Your task to perform on an android device: check google app version Image 0: 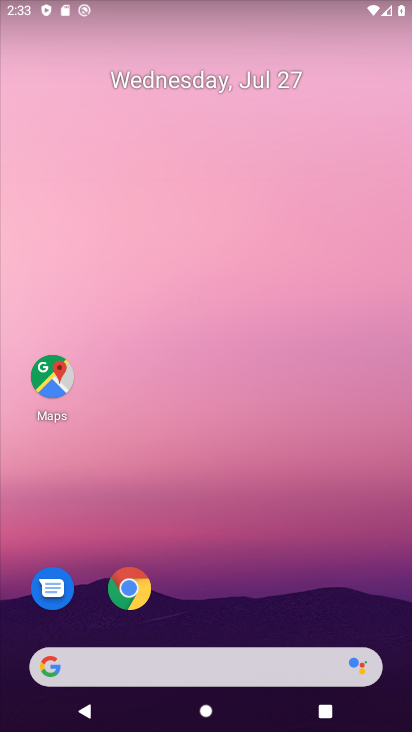
Step 0: drag from (232, 688) to (113, 216)
Your task to perform on an android device: check google app version Image 1: 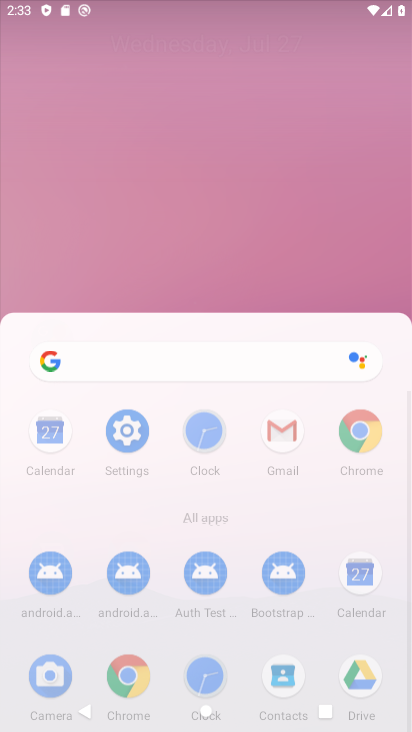
Step 1: drag from (182, 623) to (179, 203)
Your task to perform on an android device: check google app version Image 2: 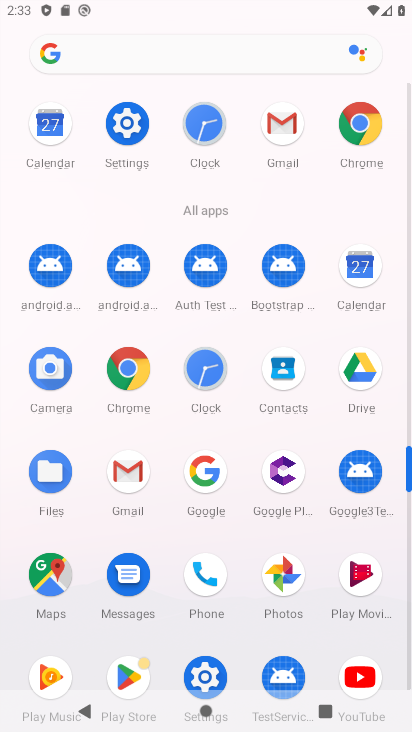
Step 2: drag from (274, 618) to (225, 248)
Your task to perform on an android device: check google app version Image 3: 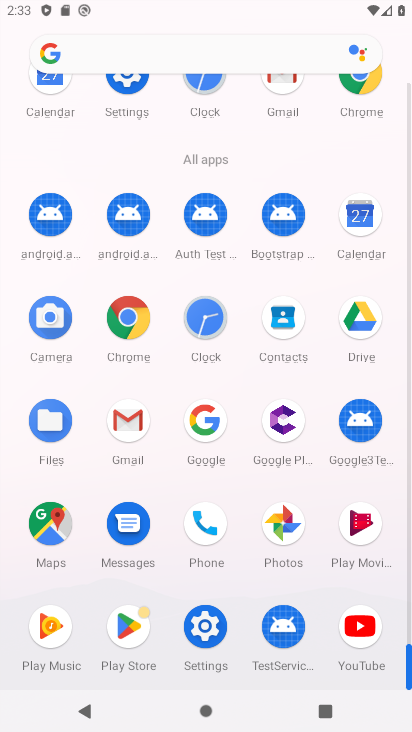
Step 3: click (199, 425)
Your task to perform on an android device: check google app version Image 4: 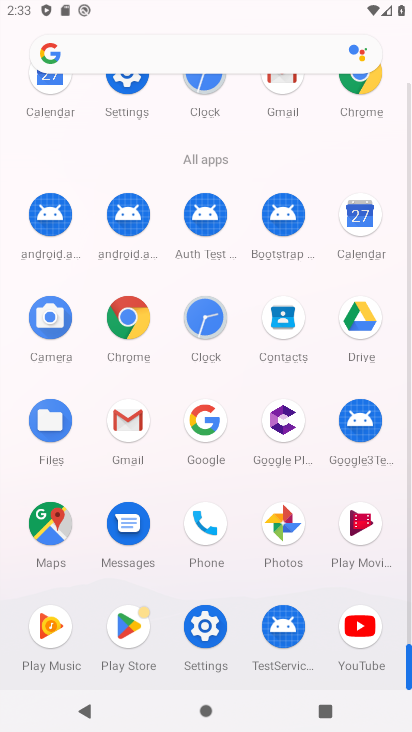
Step 4: click (204, 420)
Your task to perform on an android device: check google app version Image 5: 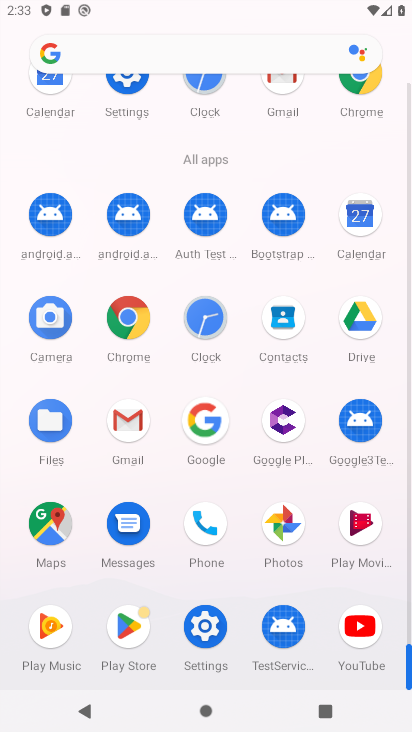
Step 5: click (205, 419)
Your task to perform on an android device: check google app version Image 6: 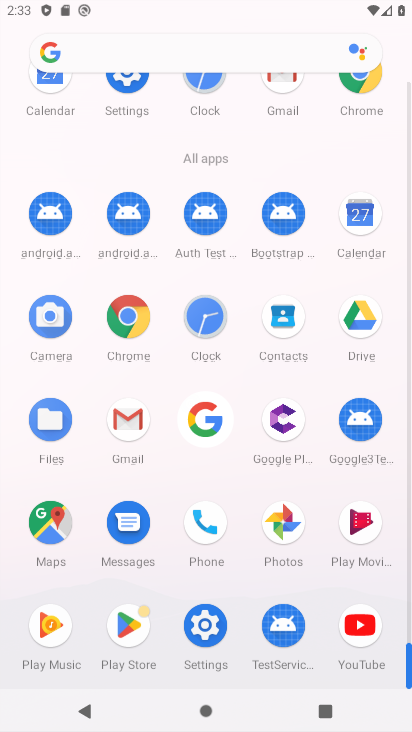
Step 6: click (204, 413)
Your task to perform on an android device: check google app version Image 7: 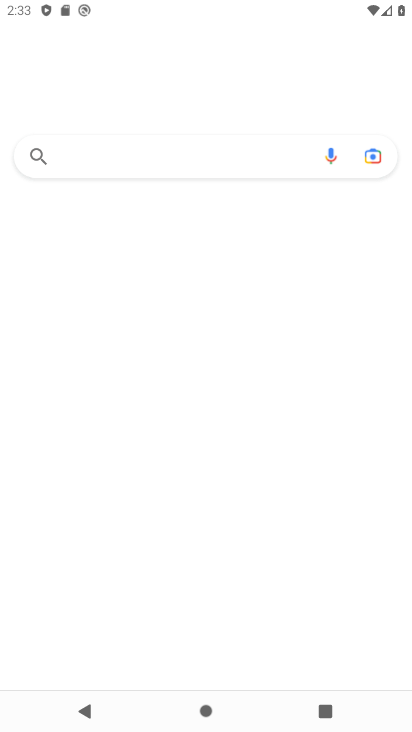
Step 7: click (203, 412)
Your task to perform on an android device: check google app version Image 8: 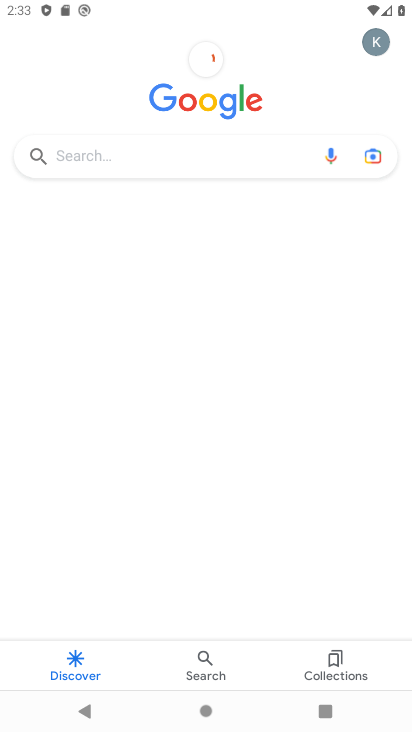
Step 8: click (372, 38)
Your task to perform on an android device: check google app version Image 9: 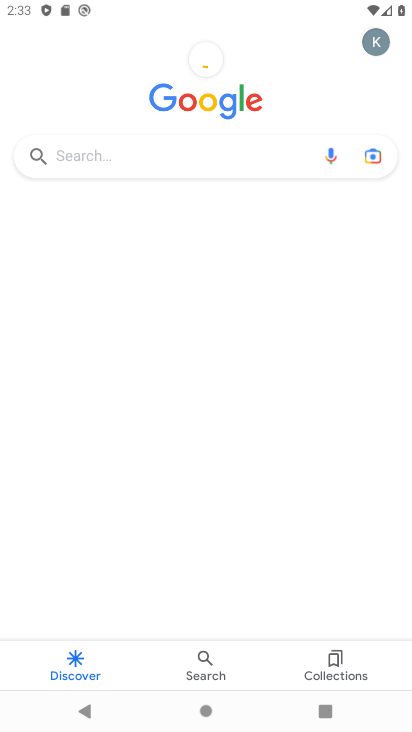
Step 9: click (373, 37)
Your task to perform on an android device: check google app version Image 10: 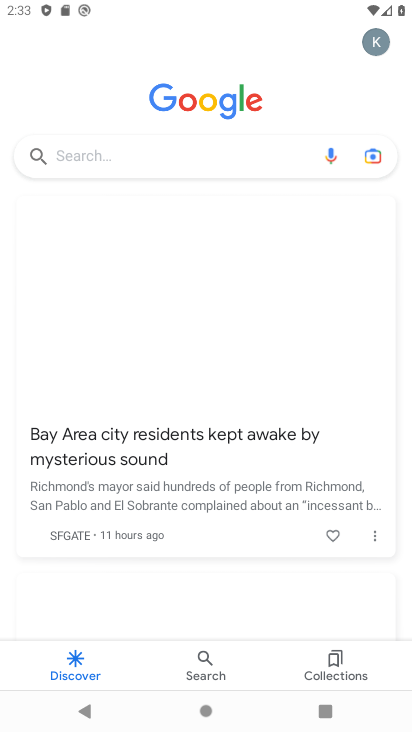
Step 10: click (373, 38)
Your task to perform on an android device: check google app version Image 11: 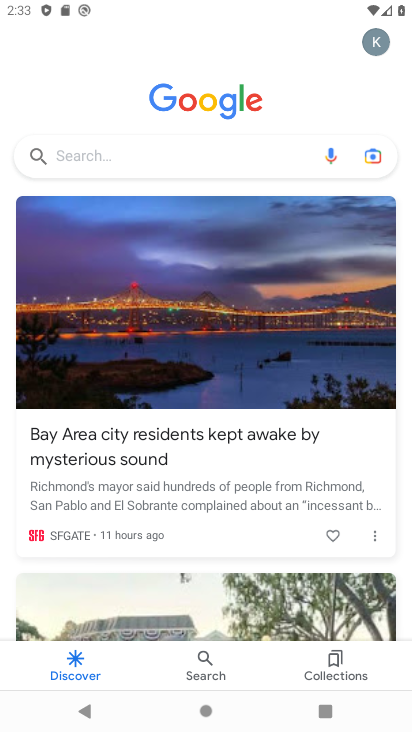
Step 11: drag from (375, 35) to (69, 446)
Your task to perform on an android device: check google app version Image 12: 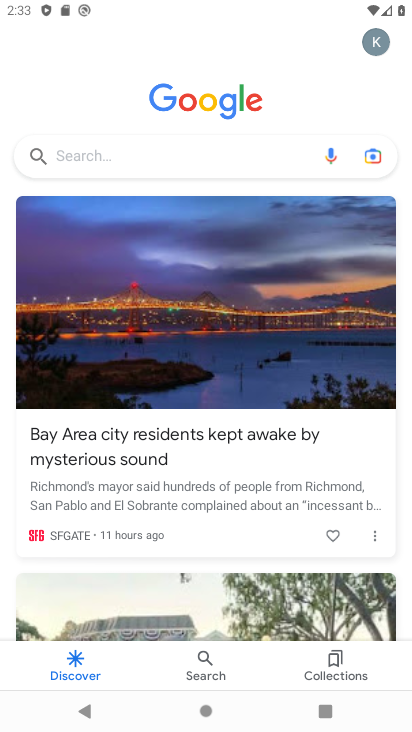
Step 12: click (374, 35)
Your task to perform on an android device: check google app version Image 13: 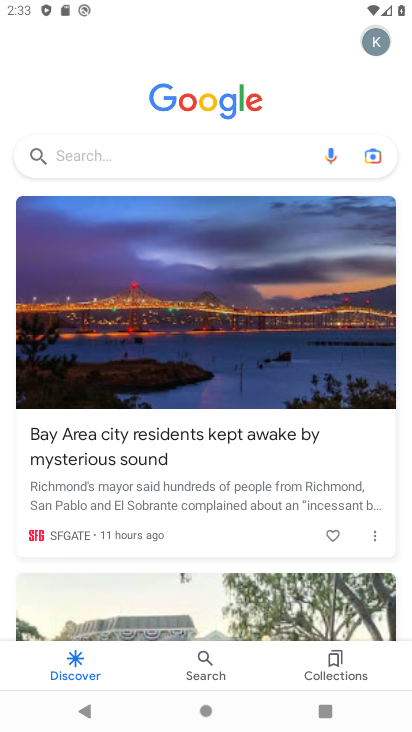
Step 13: click (374, 35)
Your task to perform on an android device: check google app version Image 14: 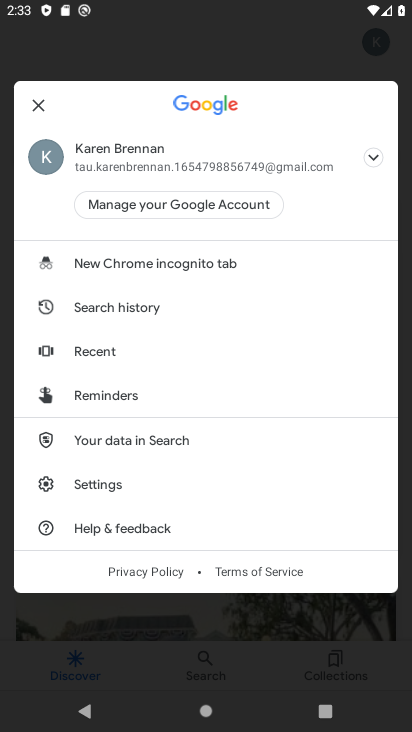
Step 14: click (103, 480)
Your task to perform on an android device: check google app version Image 15: 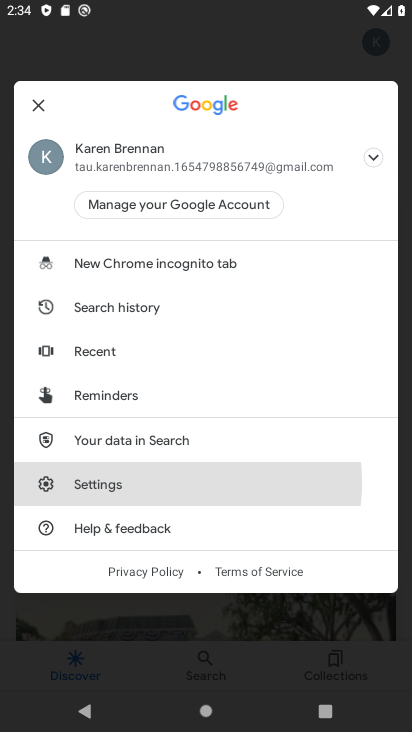
Step 15: click (102, 480)
Your task to perform on an android device: check google app version Image 16: 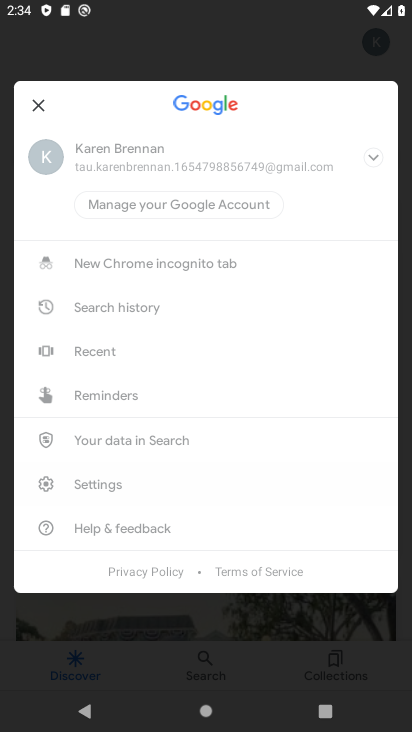
Step 16: click (103, 481)
Your task to perform on an android device: check google app version Image 17: 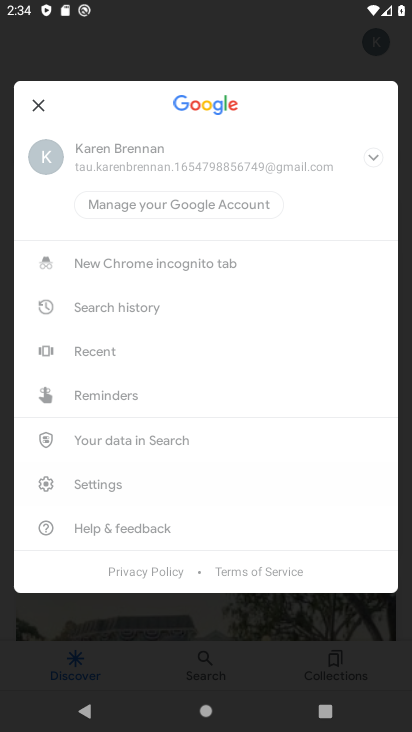
Step 17: click (104, 481)
Your task to perform on an android device: check google app version Image 18: 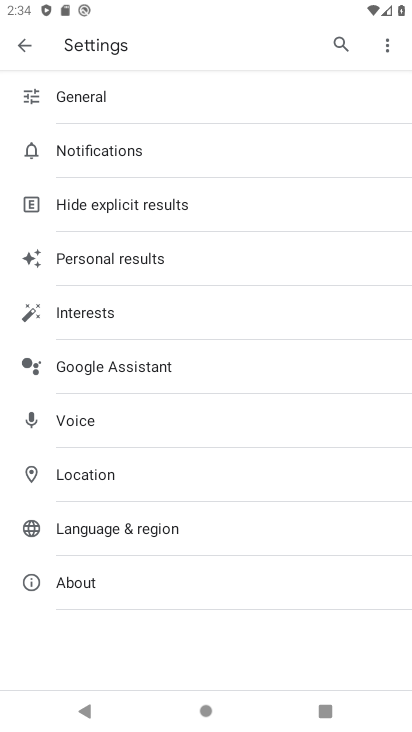
Step 18: click (104, 587)
Your task to perform on an android device: check google app version Image 19: 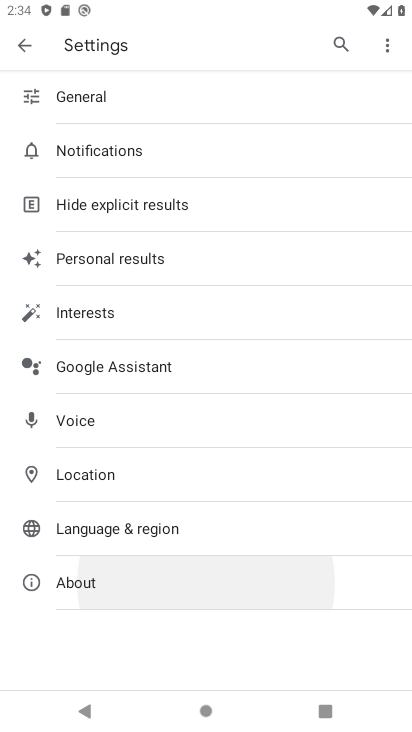
Step 19: click (106, 584)
Your task to perform on an android device: check google app version Image 20: 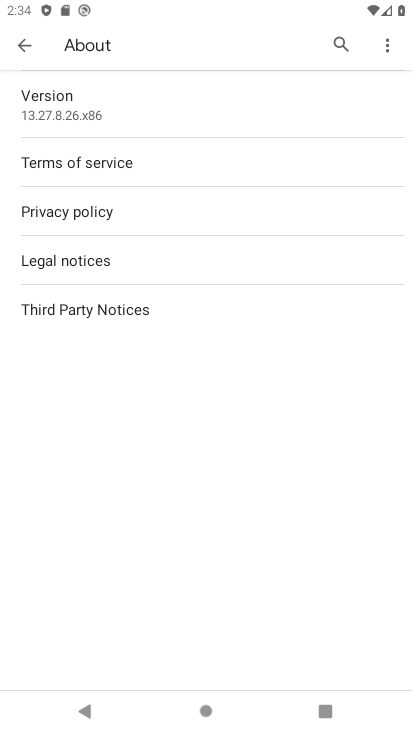
Step 20: task complete